Your task to perform on an android device: check the backup settings in the google photos Image 0: 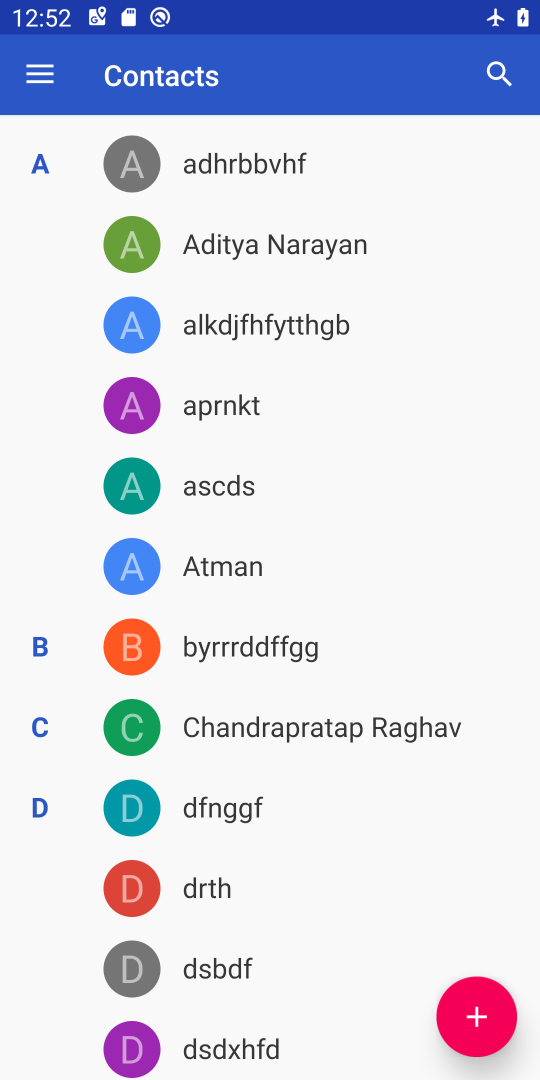
Step 0: press home button
Your task to perform on an android device: check the backup settings in the google photos Image 1: 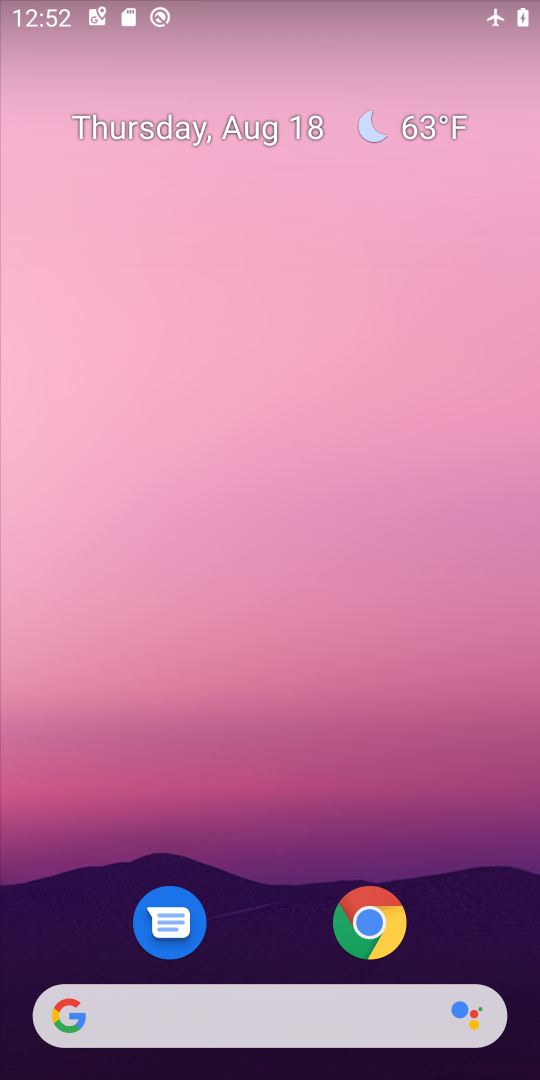
Step 1: drag from (271, 907) to (242, 308)
Your task to perform on an android device: check the backup settings in the google photos Image 2: 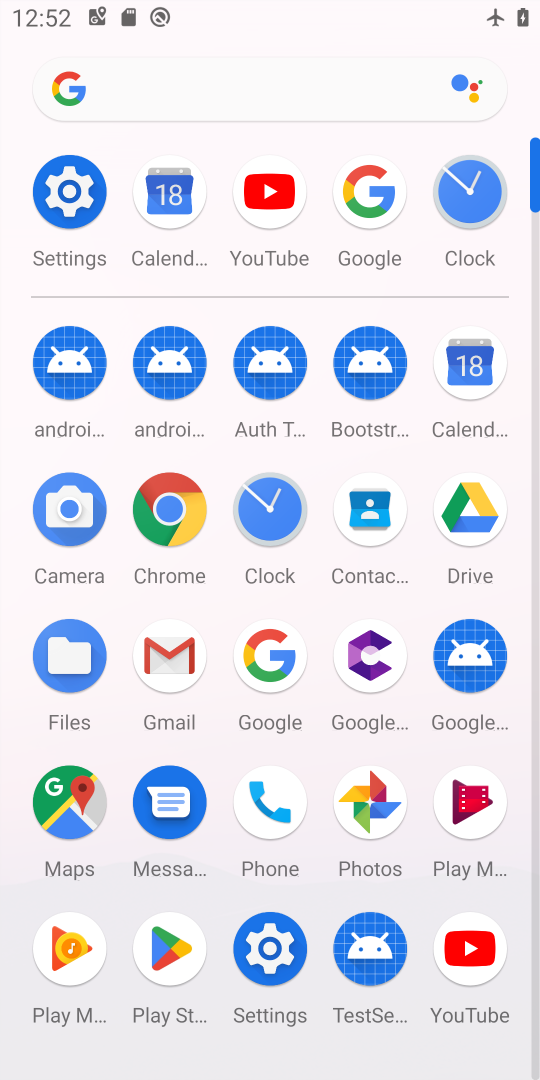
Step 2: click (368, 795)
Your task to perform on an android device: check the backup settings in the google photos Image 3: 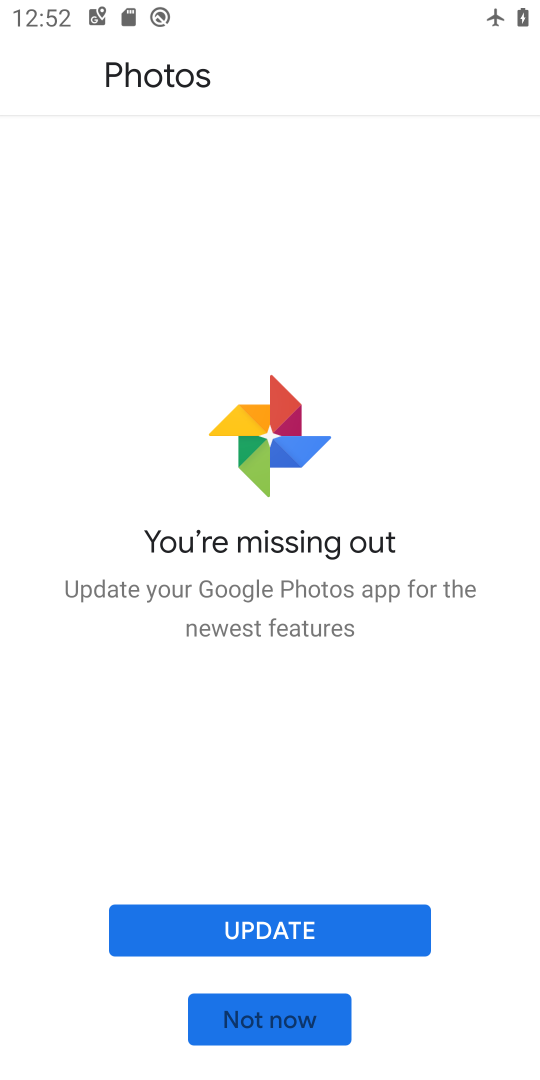
Step 3: click (275, 928)
Your task to perform on an android device: check the backup settings in the google photos Image 4: 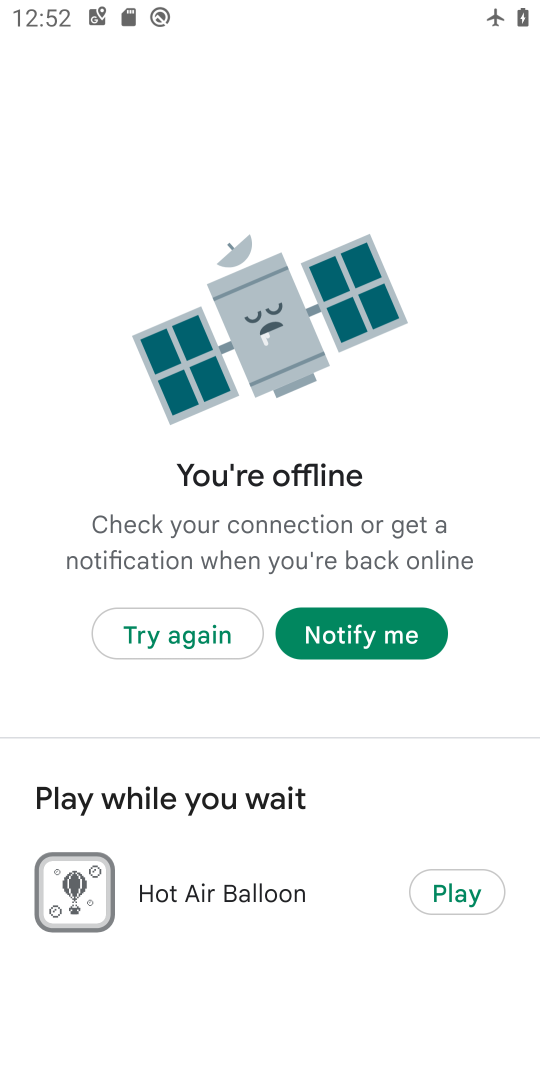
Step 4: click (174, 637)
Your task to perform on an android device: check the backup settings in the google photos Image 5: 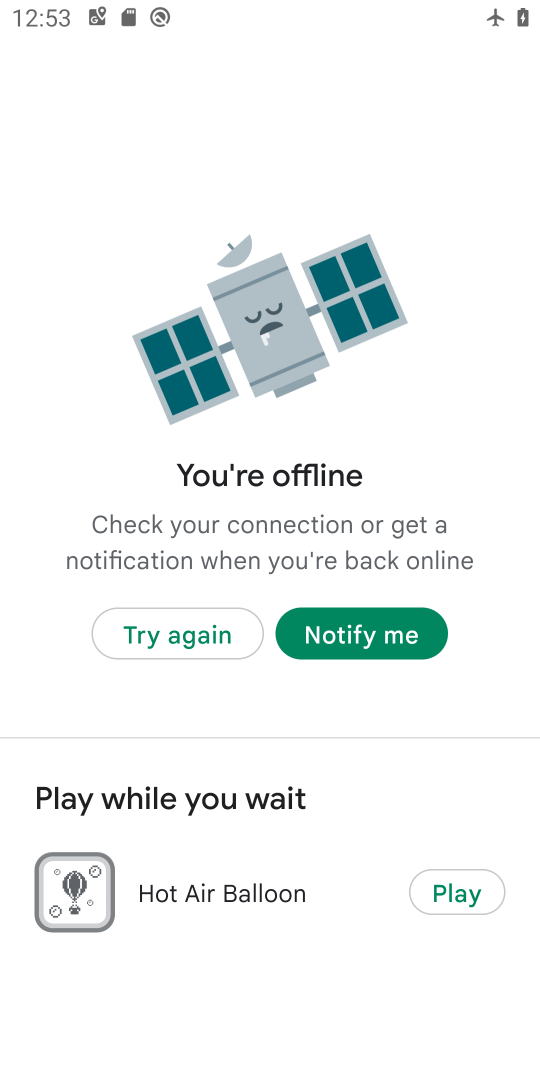
Step 5: click (322, 640)
Your task to perform on an android device: check the backup settings in the google photos Image 6: 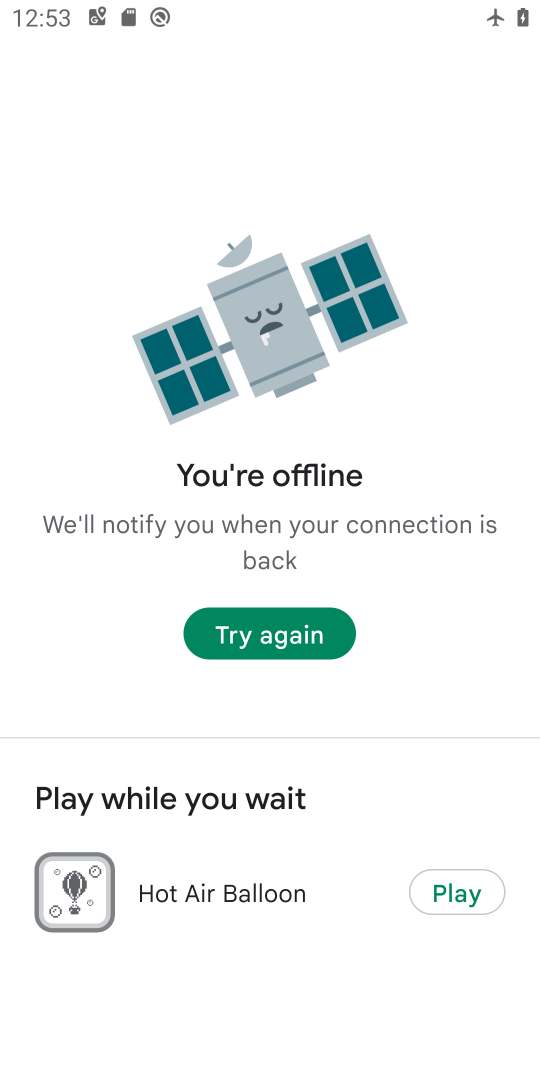
Step 6: task complete